Your task to perform on an android device: Show me recent news Image 0: 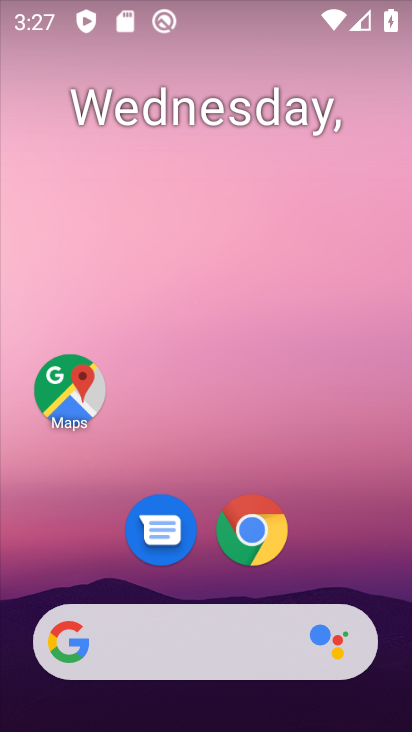
Step 0: drag from (377, 548) to (352, 133)
Your task to perform on an android device: Show me recent news Image 1: 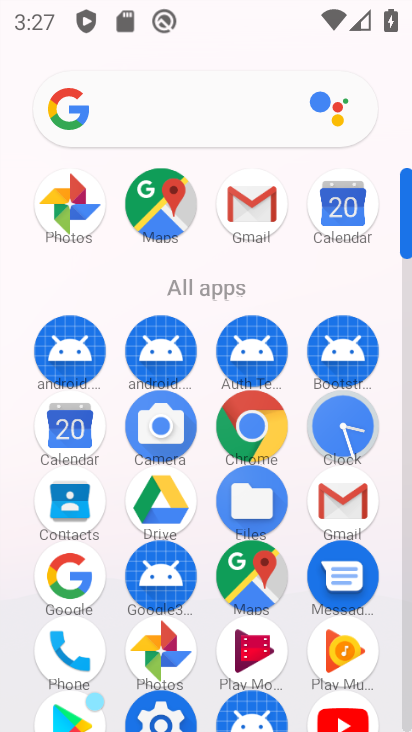
Step 1: click (258, 421)
Your task to perform on an android device: Show me recent news Image 2: 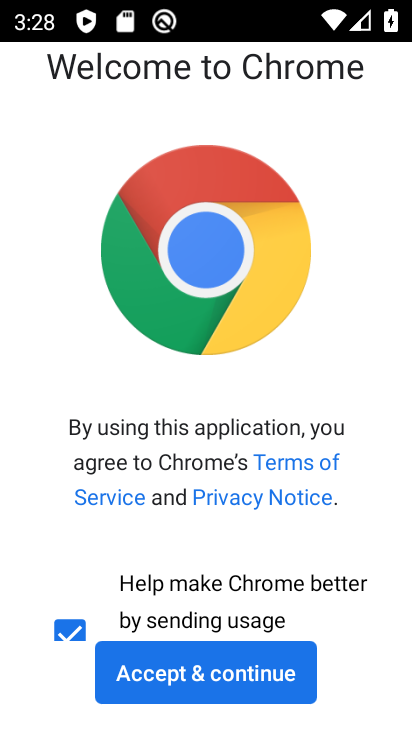
Step 2: click (279, 659)
Your task to perform on an android device: Show me recent news Image 3: 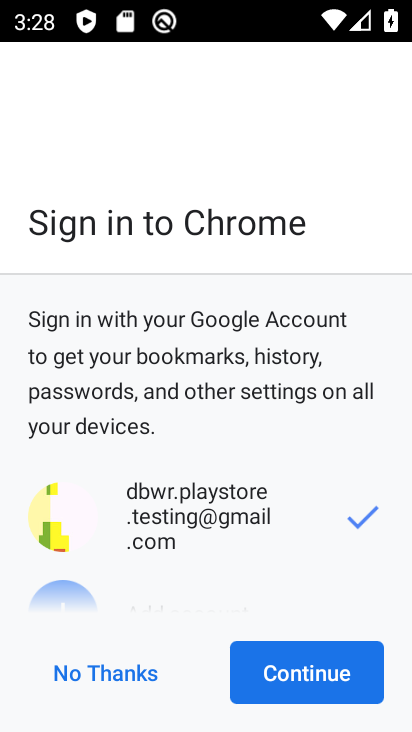
Step 3: click (260, 652)
Your task to perform on an android device: Show me recent news Image 4: 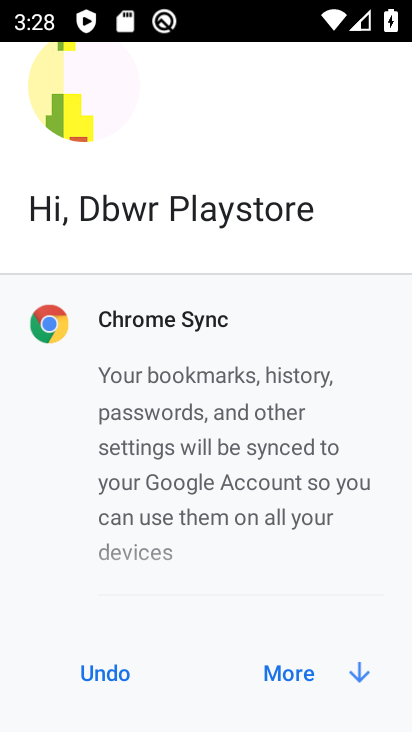
Step 4: click (302, 678)
Your task to perform on an android device: Show me recent news Image 5: 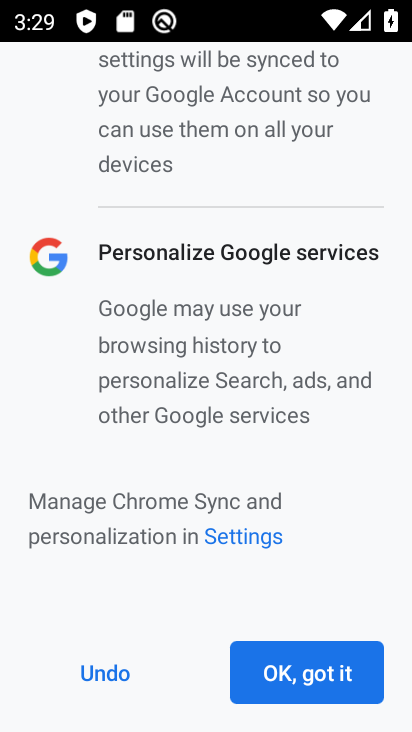
Step 5: click (269, 684)
Your task to perform on an android device: Show me recent news Image 6: 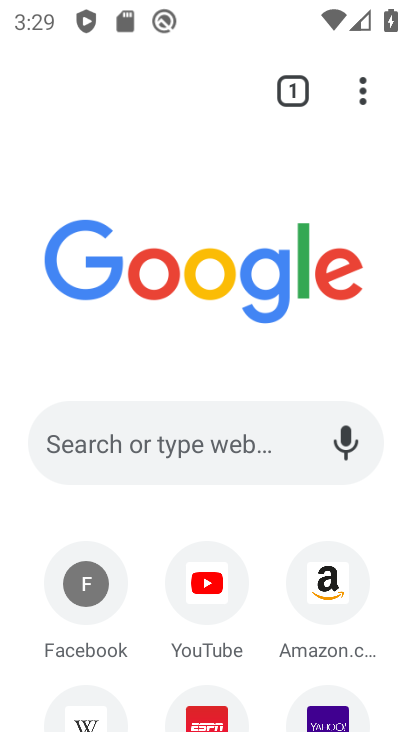
Step 6: click (133, 433)
Your task to perform on an android device: Show me recent news Image 7: 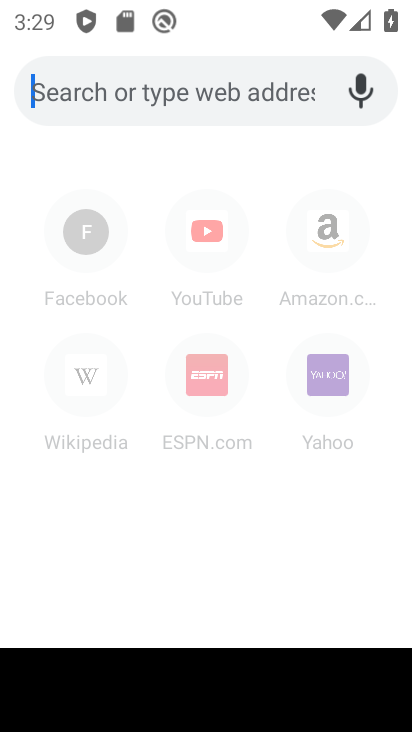
Step 7: type " recent news"
Your task to perform on an android device: Show me recent news Image 8: 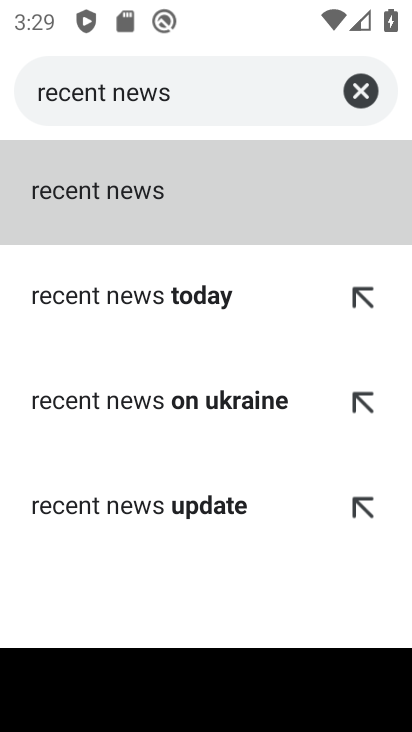
Step 8: click (77, 190)
Your task to perform on an android device: Show me recent news Image 9: 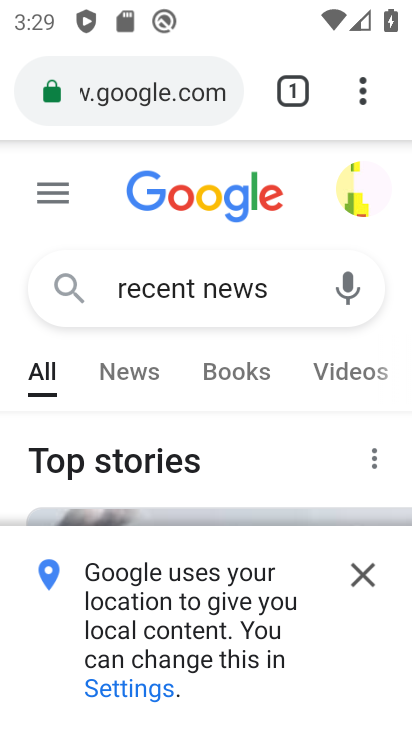
Step 9: drag from (320, 438) to (340, 170)
Your task to perform on an android device: Show me recent news Image 10: 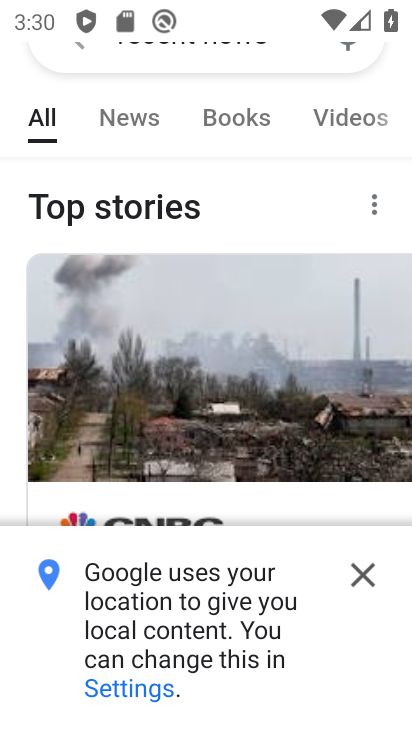
Step 10: click (123, 119)
Your task to perform on an android device: Show me recent news Image 11: 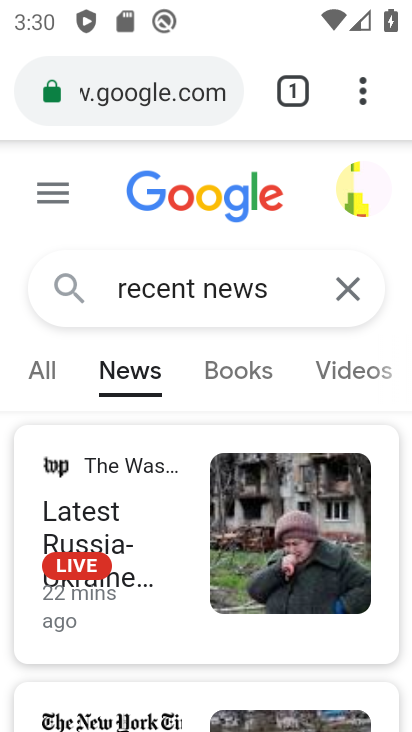
Step 11: task complete